Your task to perform on an android device: open a bookmark in the chrome app Image 0: 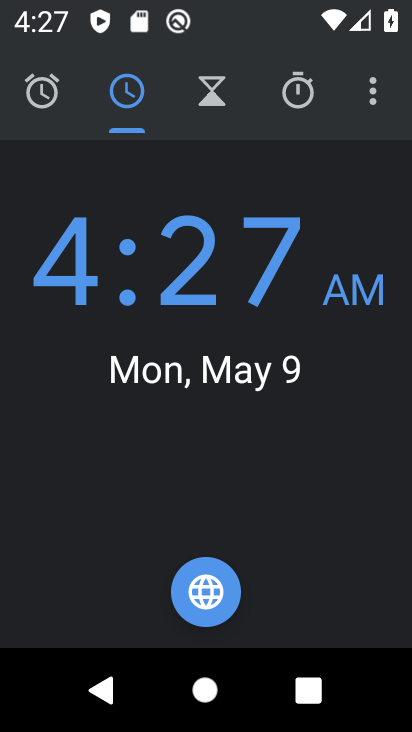
Step 0: press back button
Your task to perform on an android device: open a bookmark in the chrome app Image 1: 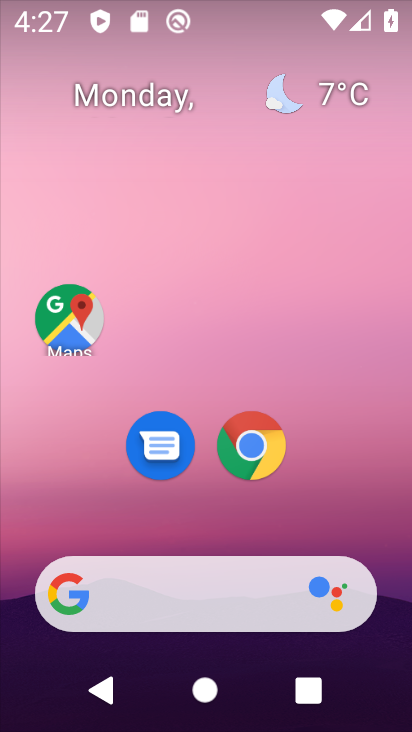
Step 1: click (255, 460)
Your task to perform on an android device: open a bookmark in the chrome app Image 2: 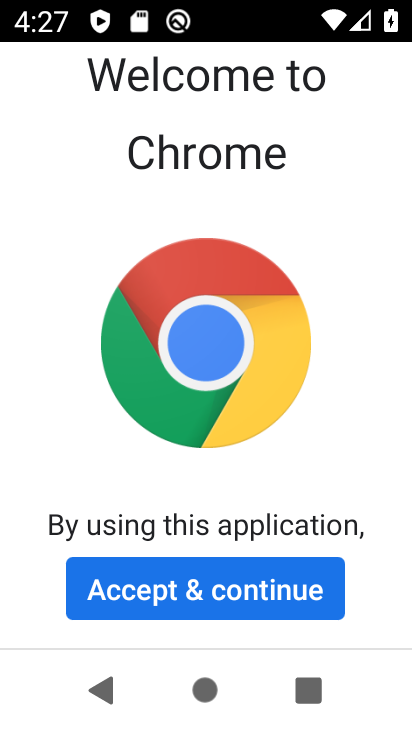
Step 2: click (211, 573)
Your task to perform on an android device: open a bookmark in the chrome app Image 3: 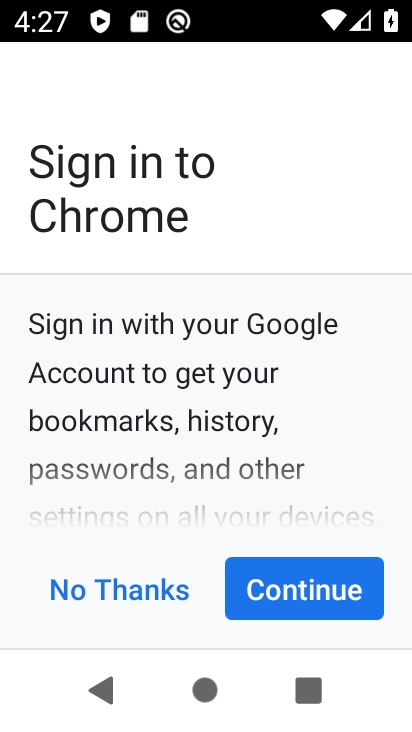
Step 3: click (340, 583)
Your task to perform on an android device: open a bookmark in the chrome app Image 4: 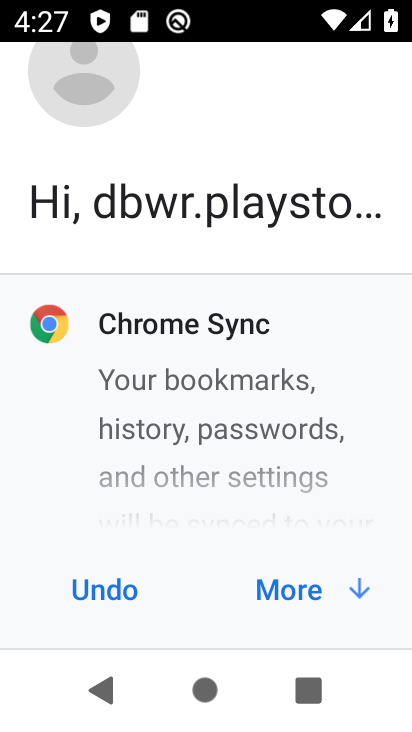
Step 4: click (276, 629)
Your task to perform on an android device: open a bookmark in the chrome app Image 5: 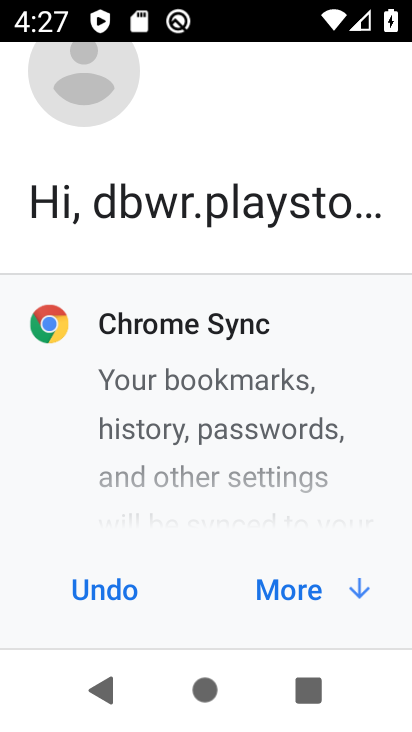
Step 5: click (300, 615)
Your task to perform on an android device: open a bookmark in the chrome app Image 6: 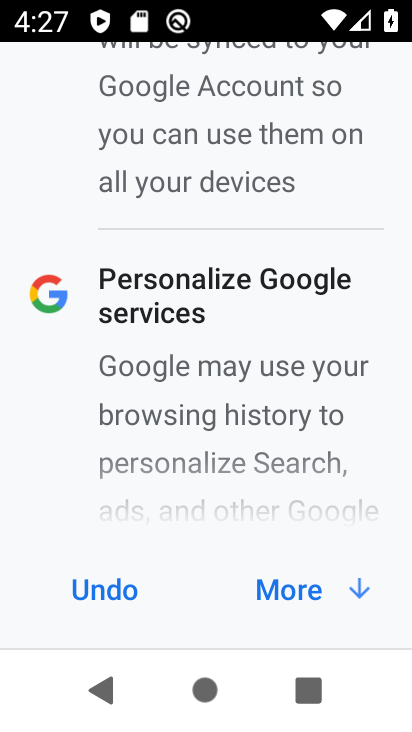
Step 6: click (366, 591)
Your task to perform on an android device: open a bookmark in the chrome app Image 7: 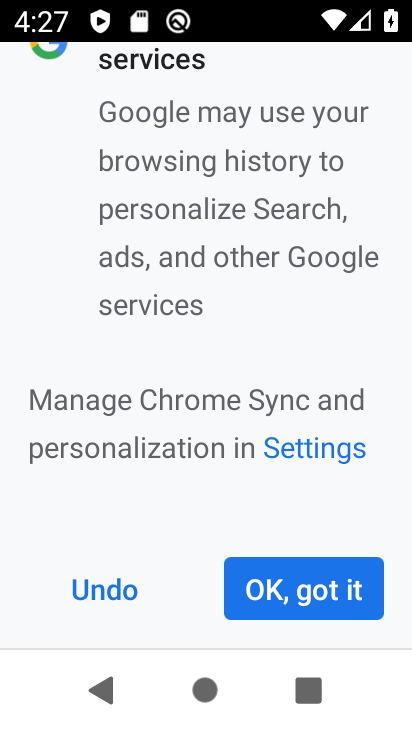
Step 7: click (366, 591)
Your task to perform on an android device: open a bookmark in the chrome app Image 8: 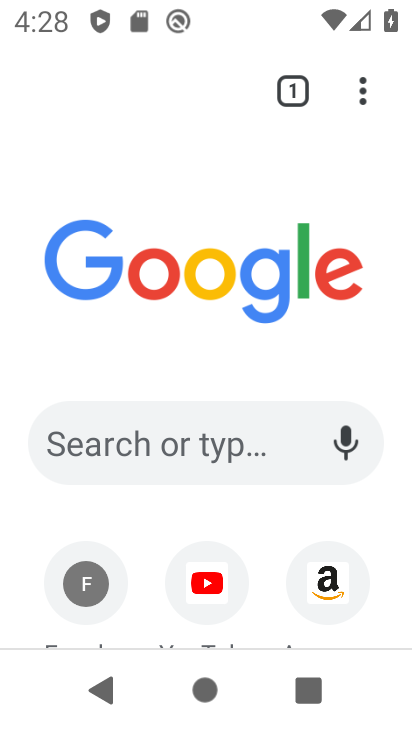
Step 8: task complete